Your task to perform on an android device: toggle priority inbox in the gmail app Image 0: 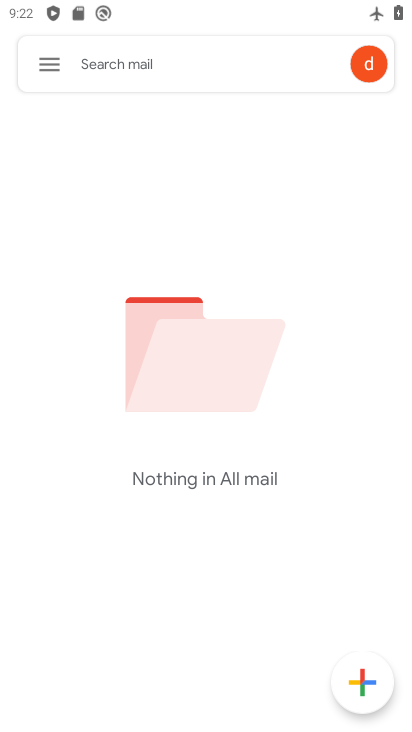
Step 0: click (58, 52)
Your task to perform on an android device: toggle priority inbox in the gmail app Image 1: 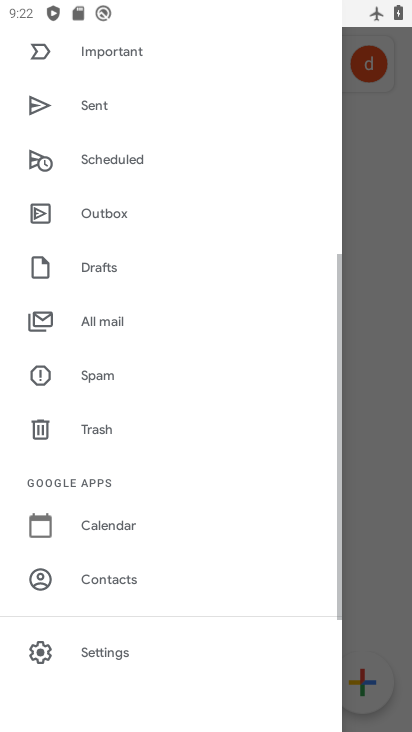
Step 1: click (79, 649)
Your task to perform on an android device: toggle priority inbox in the gmail app Image 2: 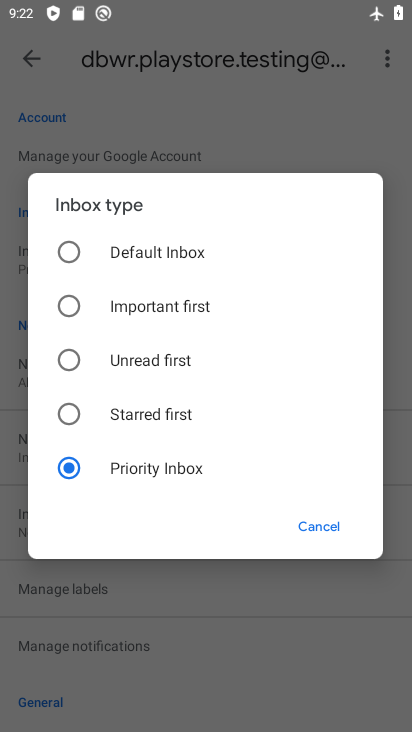
Step 2: click (178, 258)
Your task to perform on an android device: toggle priority inbox in the gmail app Image 3: 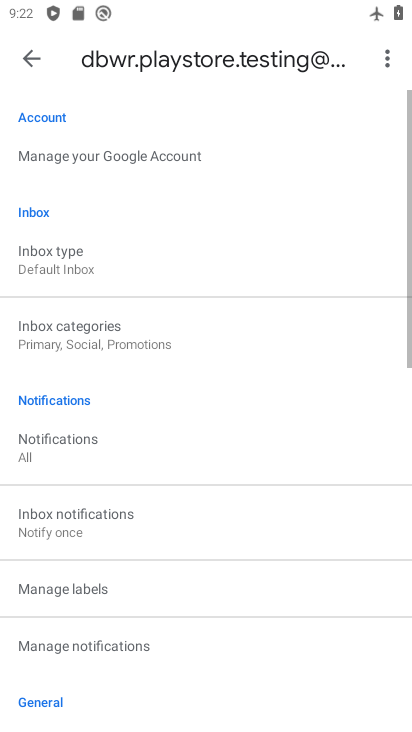
Step 3: task complete